Your task to perform on an android device: Open my contact list Image 0: 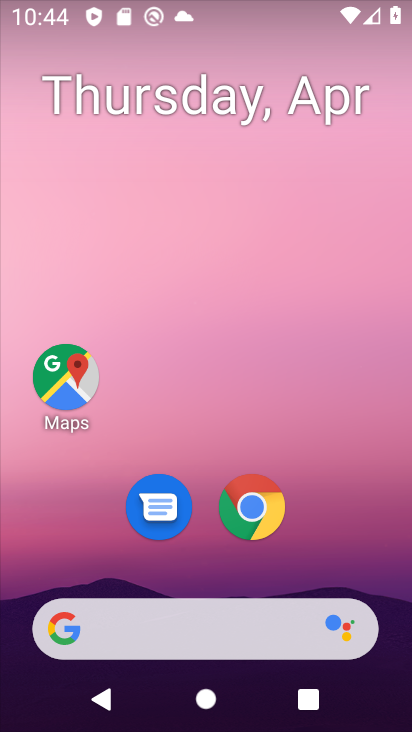
Step 0: drag from (173, 593) to (341, 52)
Your task to perform on an android device: Open my contact list Image 1: 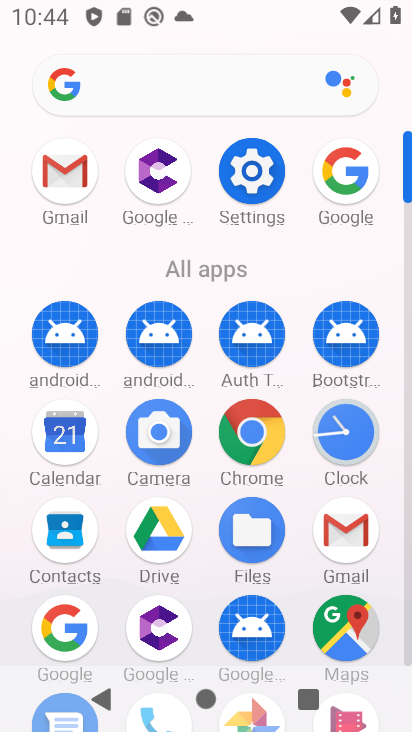
Step 1: click (63, 541)
Your task to perform on an android device: Open my contact list Image 2: 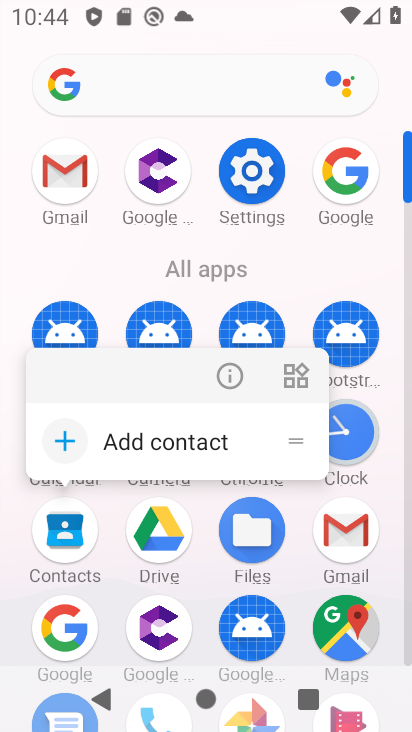
Step 2: click (61, 531)
Your task to perform on an android device: Open my contact list Image 3: 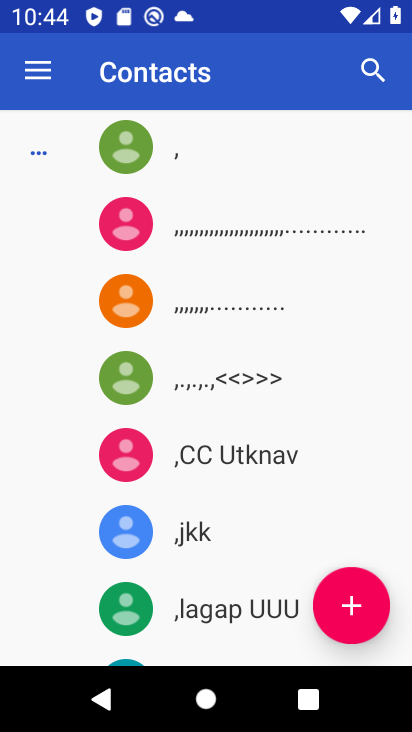
Step 3: task complete